Your task to perform on an android device: Open the web browser Image 0: 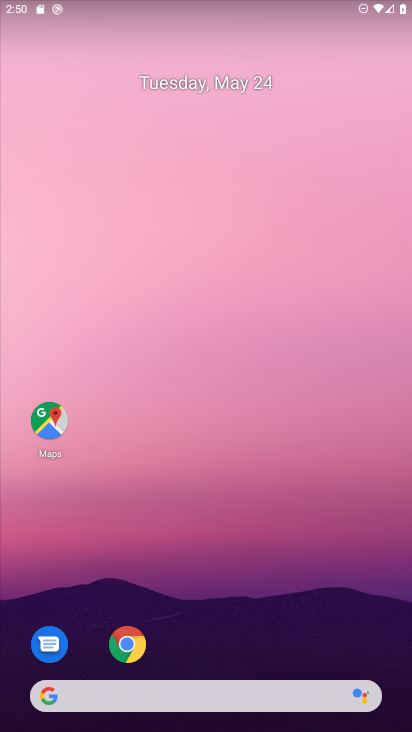
Step 0: drag from (303, 586) to (263, 189)
Your task to perform on an android device: Open the web browser Image 1: 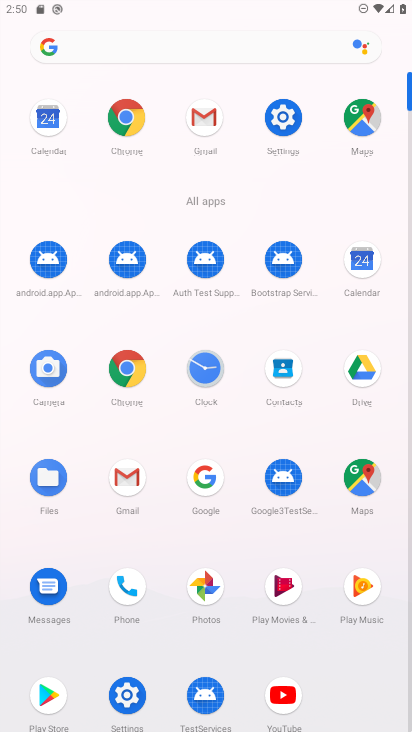
Step 1: click (152, 376)
Your task to perform on an android device: Open the web browser Image 2: 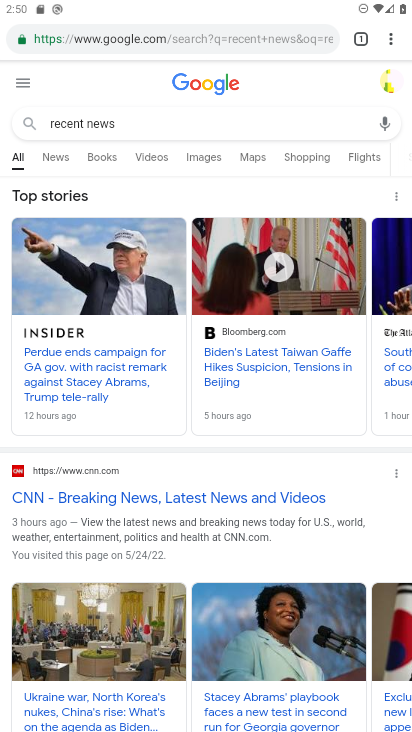
Step 2: task complete